Your task to perform on an android device: Toggle the flashlight Image 0: 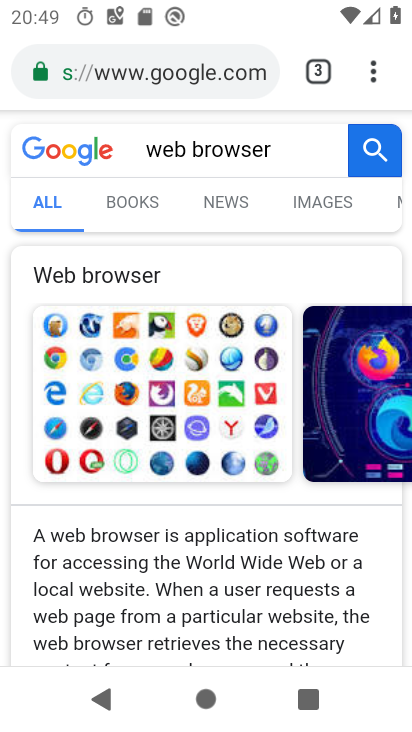
Step 0: press home button
Your task to perform on an android device: Toggle the flashlight Image 1: 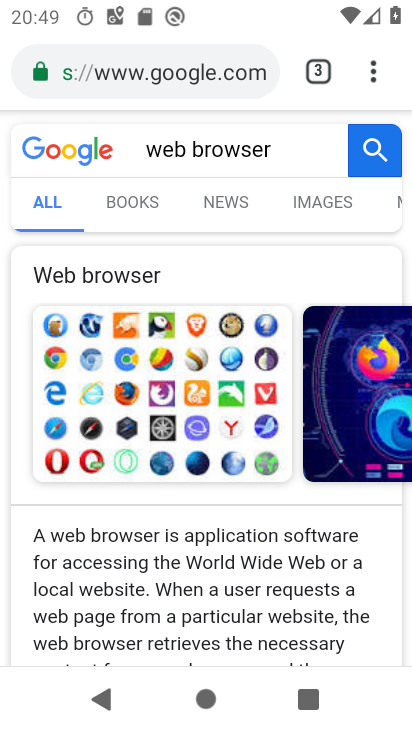
Step 1: task complete